Your task to perform on an android device: Open network settings Image 0: 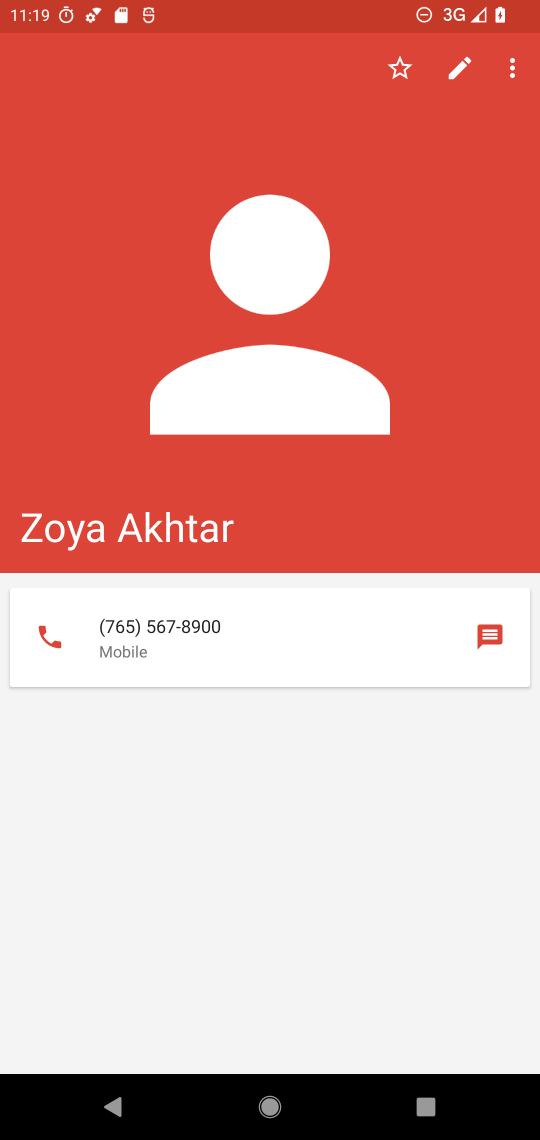
Step 0: press home button
Your task to perform on an android device: Open network settings Image 1: 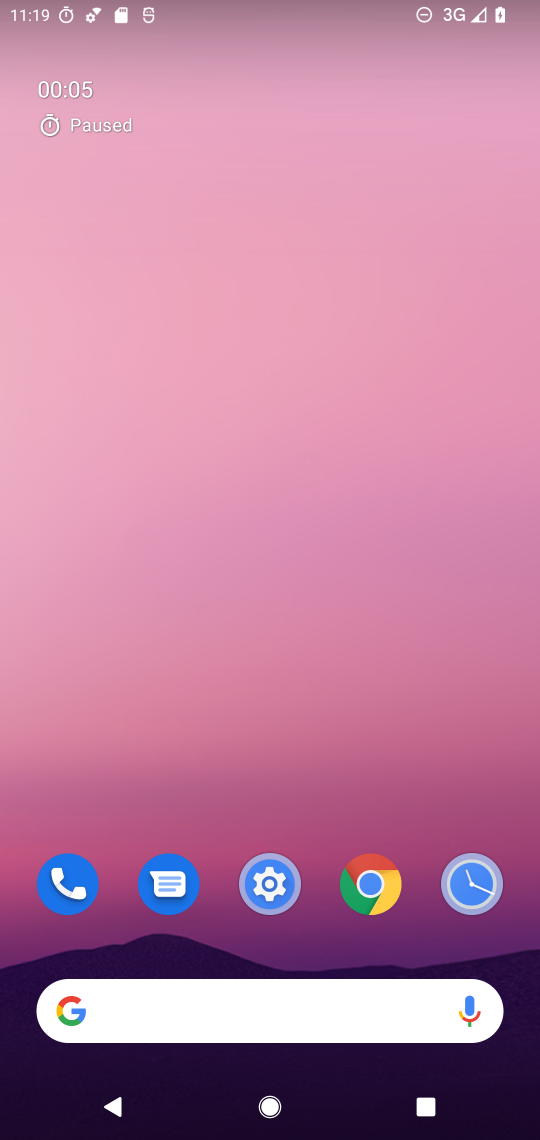
Step 1: click (262, 884)
Your task to perform on an android device: Open network settings Image 2: 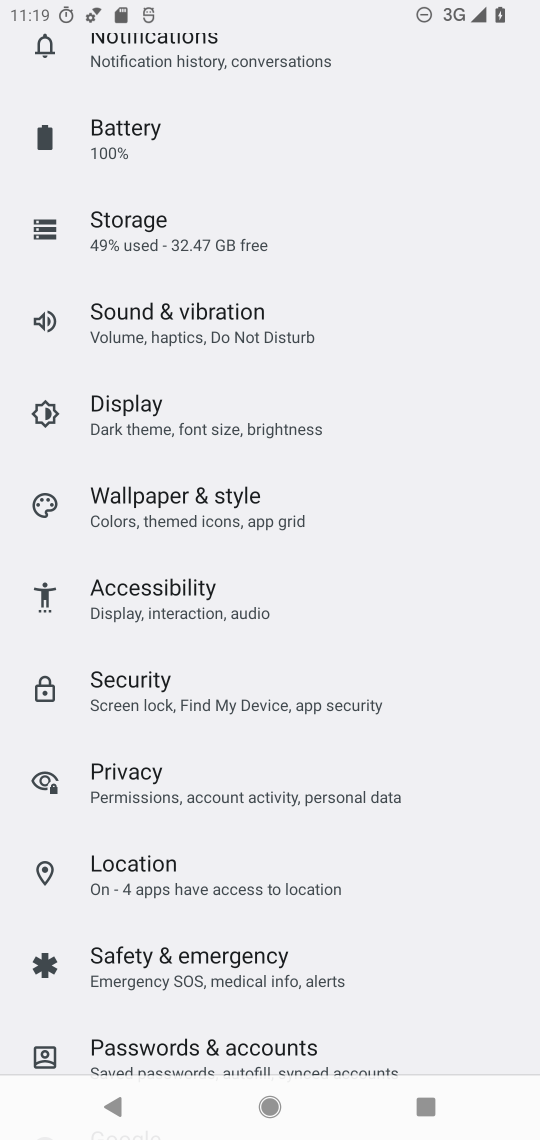
Step 2: drag from (240, 263) to (207, 734)
Your task to perform on an android device: Open network settings Image 3: 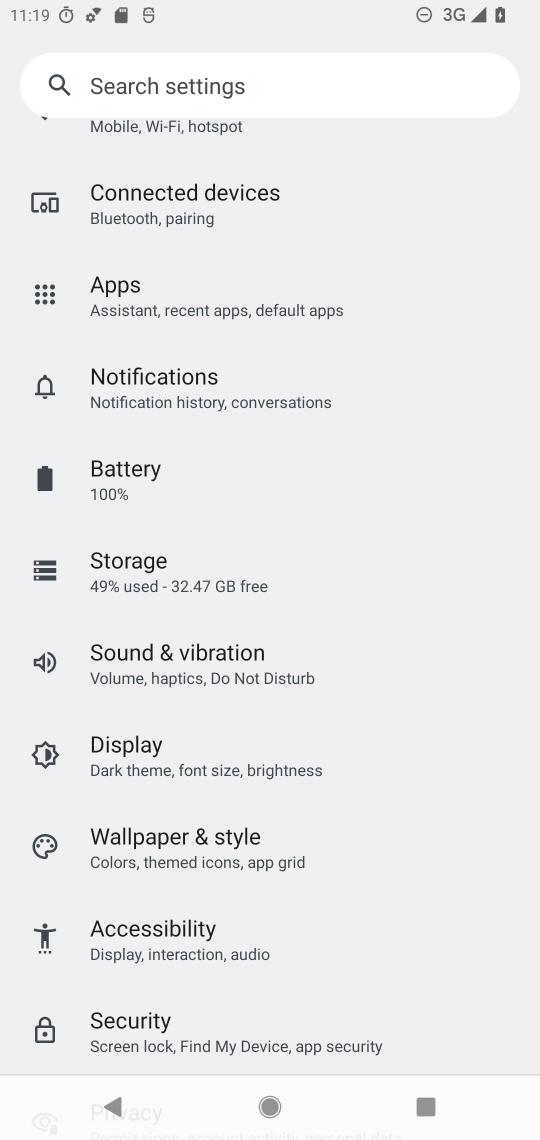
Step 3: click (244, 702)
Your task to perform on an android device: Open network settings Image 4: 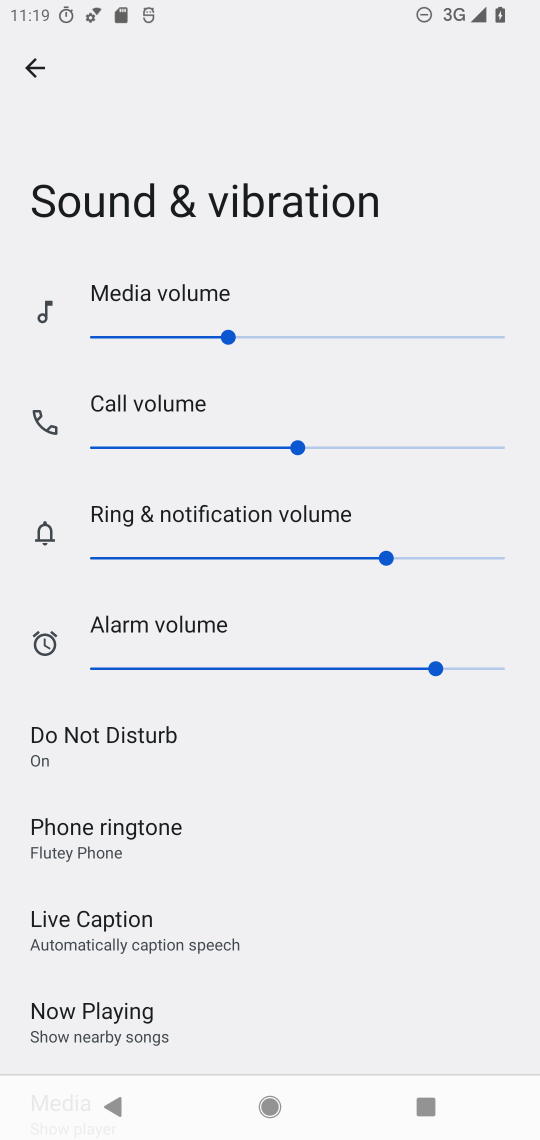
Step 4: click (28, 71)
Your task to perform on an android device: Open network settings Image 5: 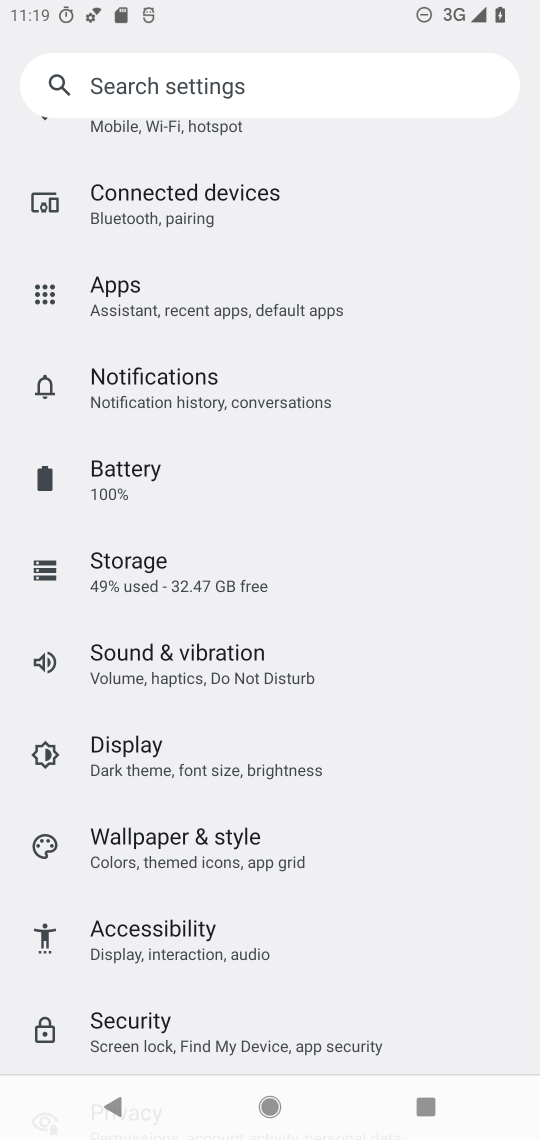
Step 5: drag from (314, 294) to (302, 820)
Your task to perform on an android device: Open network settings Image 6: 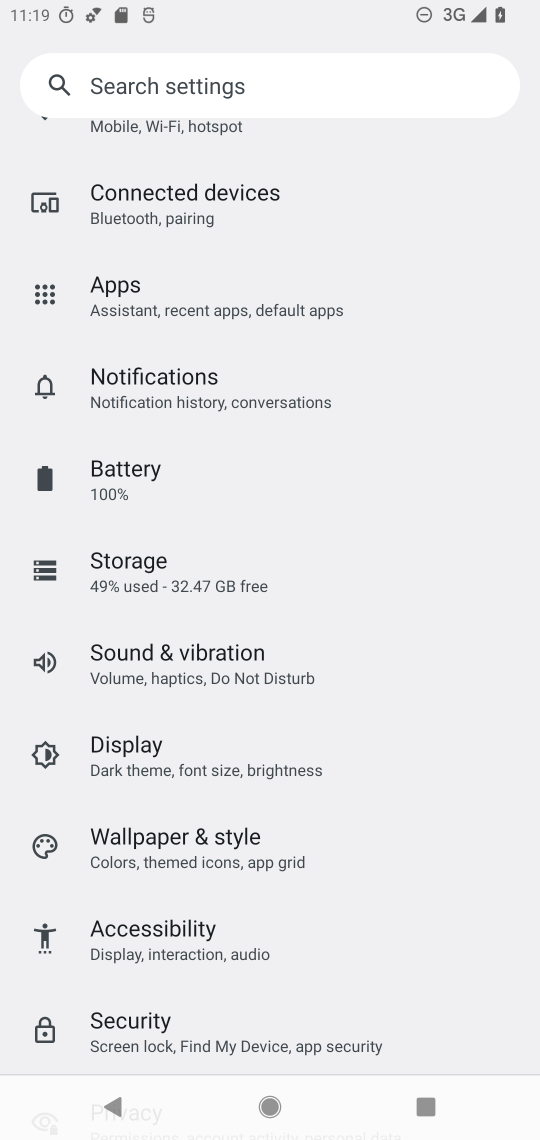
Step 6: drag from (265, 651) to (260, 763)
Your task to perform on an android device: Open network settings Image 7: 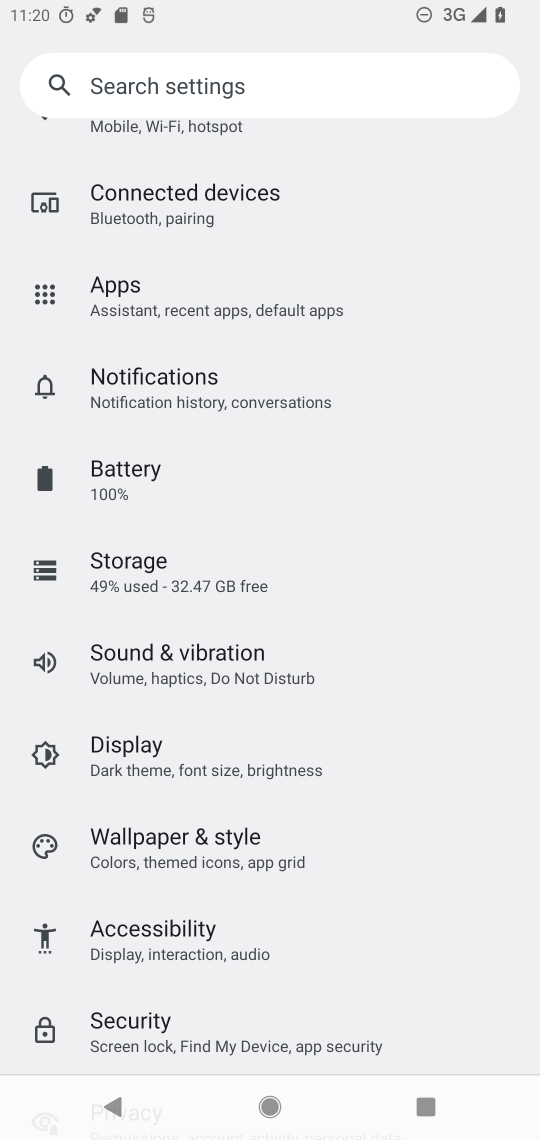
Step 7: drag from (206, 852) to (244, 1084)
Your task to perform on an android device: Open network settings Image 8: 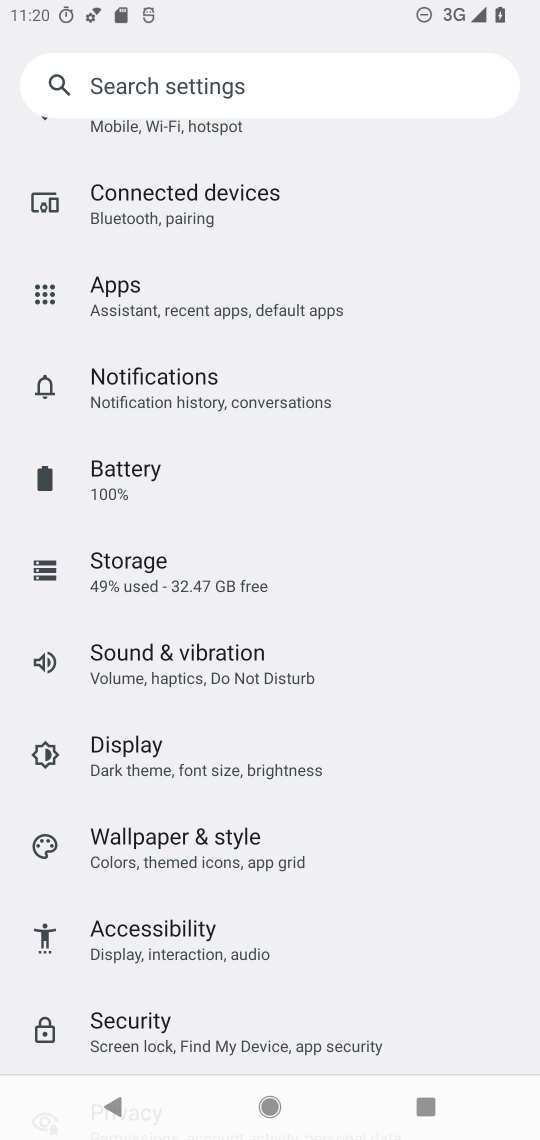
Step 8: drag from (309, 181) to (271, 941)
Your task to perform on an android device: Open network settings Image 9: 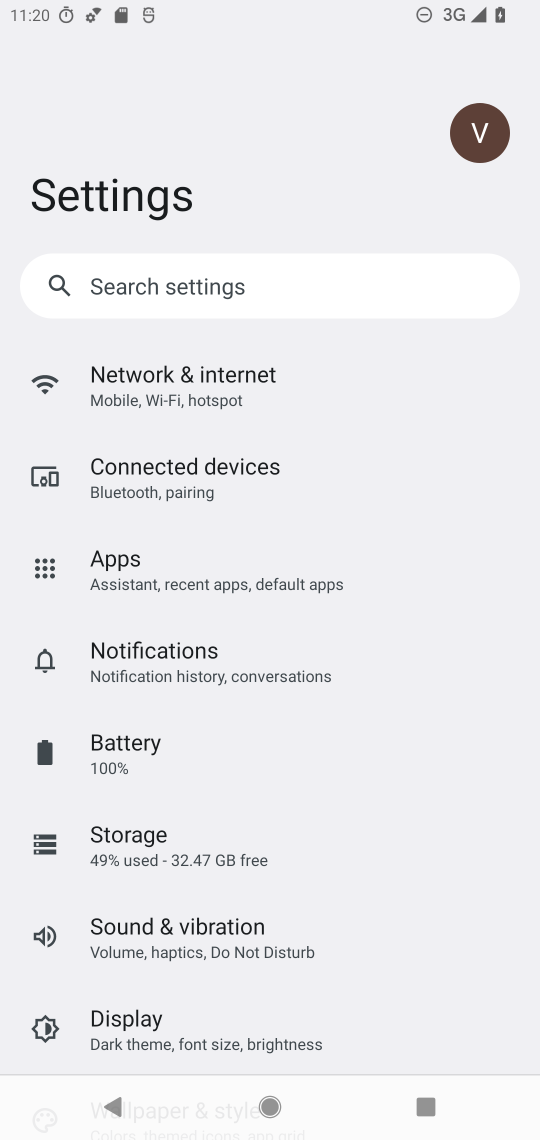
Step 9: click (179, 390)
Your task to perform on an android device: Open network settings Image 10: 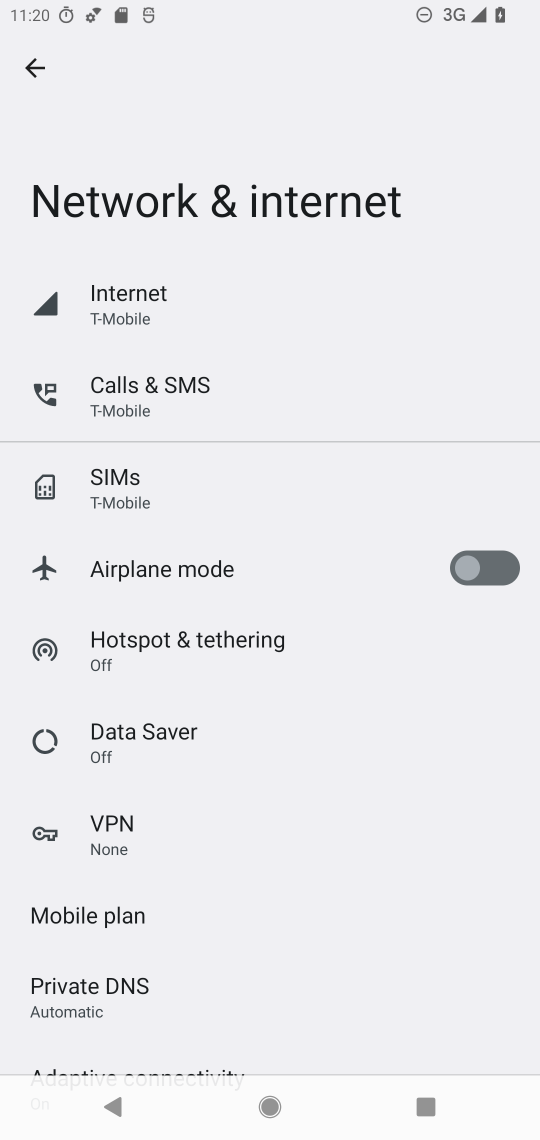
Step 10: task complete